Your task to perform on an android device: set default search engine in the chrome app Image 0: 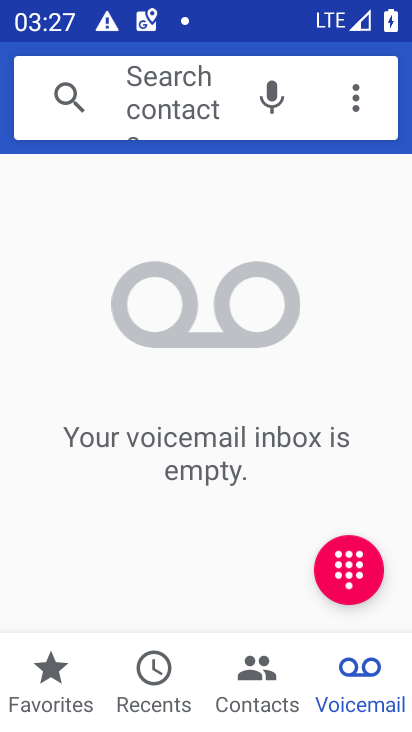
Step 0: press home button
Your task to perform on an android device: set default search engine in the chrome app Image 1: 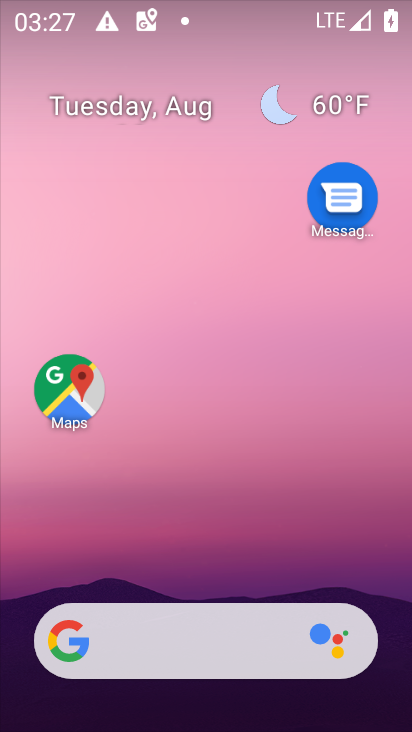
Step 1: drag from (206, 403) to (220, 135)
Your task to perform on an android device: set default search engine in the chrome app Image 2: 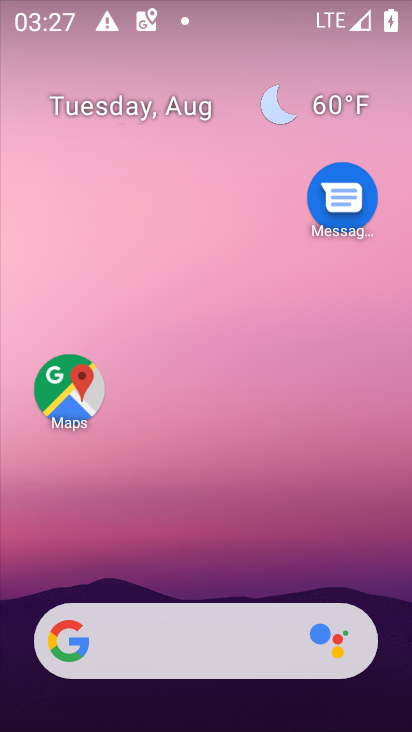
Step 2: drag from (239, 593) to (231, 27)
Your task to perform on an android device: set default search engine in the chrome app Image 3: 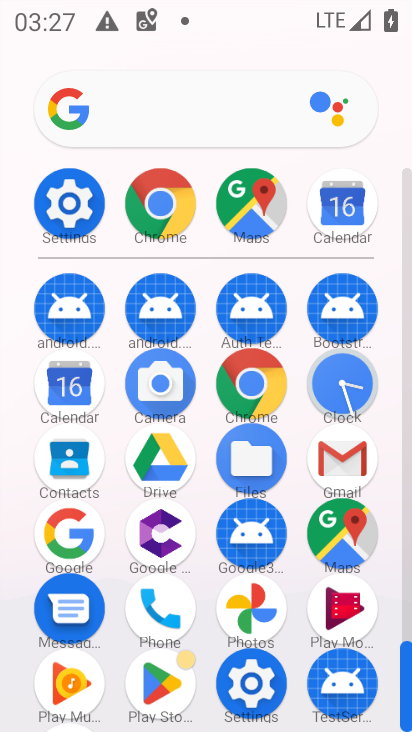
Step 3: click (167, 233)
Your task to perform on an android device: set default search engine in the chrome app Image 4: 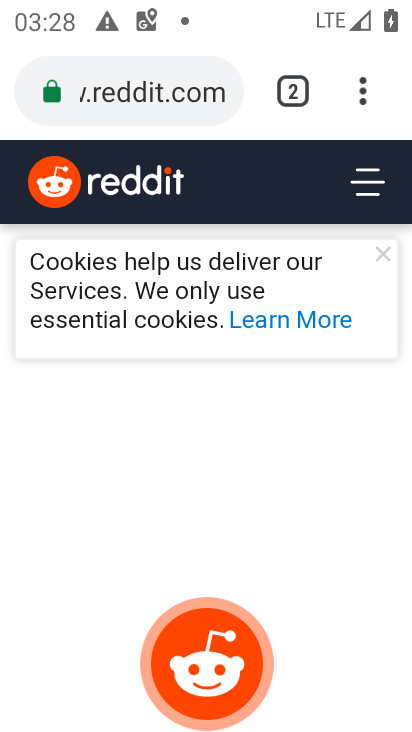
Step 4: click (357, 97)
Your task to perform on an android device: set default search engine in the chrome app Image 5: 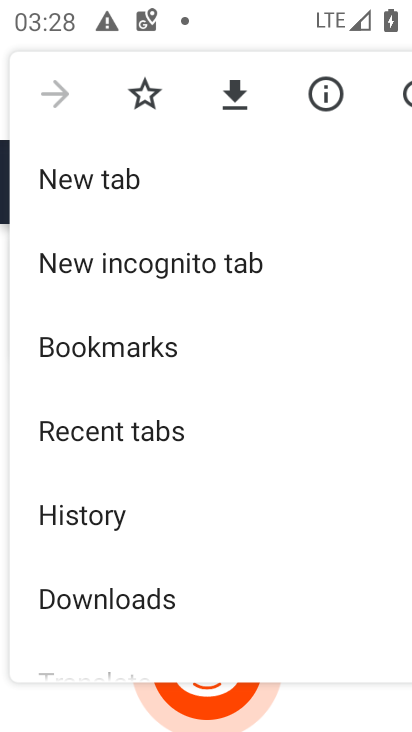
Step 5: drag from (205, 598) to (230, 134)
Your task to perform on an android device: set default search engine in the chrome app Image 6: 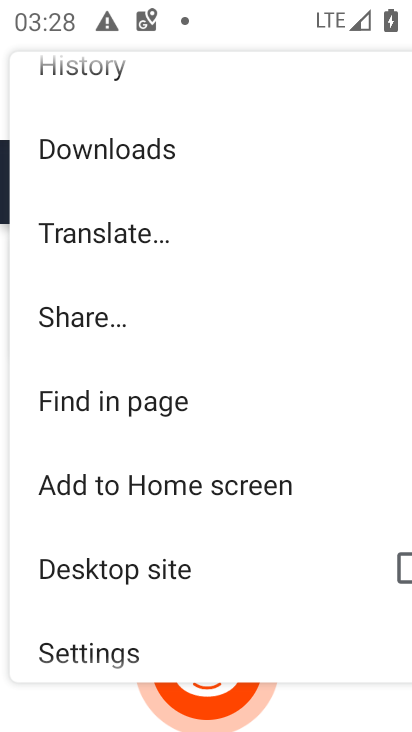
Step 6: drag from (229, 643) to (236, 271)
Your task to perform on an android device: set default search engine in the chrome app Image 7: 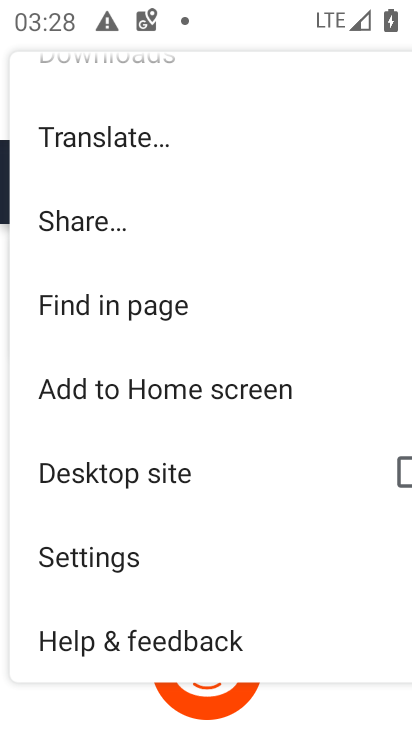
Step 7: click (191, 549)
Your task to perform on an android device: set default search engine in the chrome app Image 8: 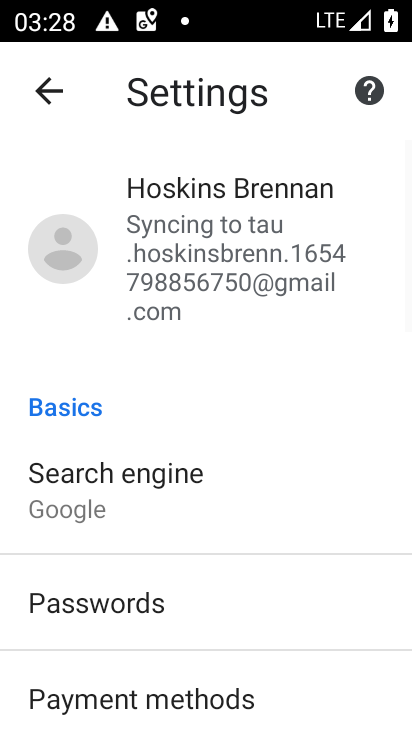
Step 8: click (158, 482)
Your task to perform on an android device: set default search engine in the chrome app Image 9: 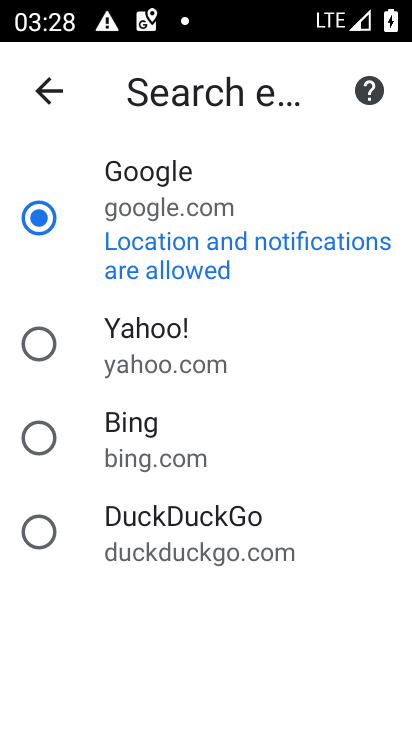
Step 9: click (151, 467)
Your task to perform on an android device: set default search engine in the chrome app Image 10: 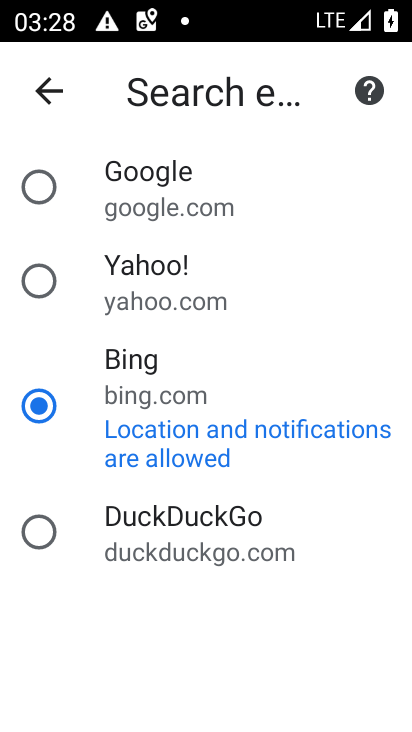
Step 10: task complete